Your task to perform on an android device: refresh tabs in the chrome app Image 0: 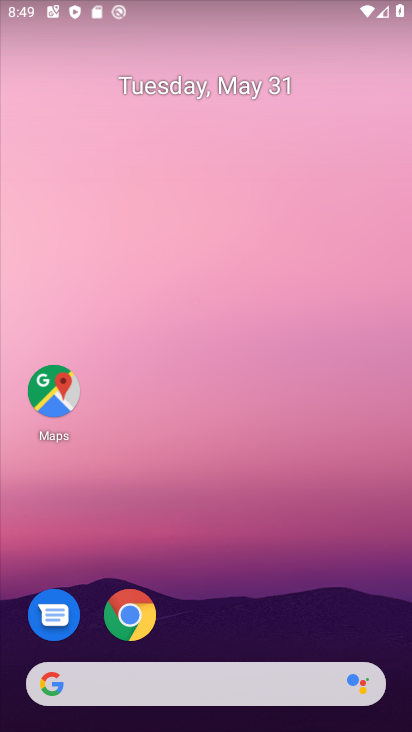
Step 0: click (125, 620)
Your task to perform on an android device: refresh tabs in the chrome app Image 1: 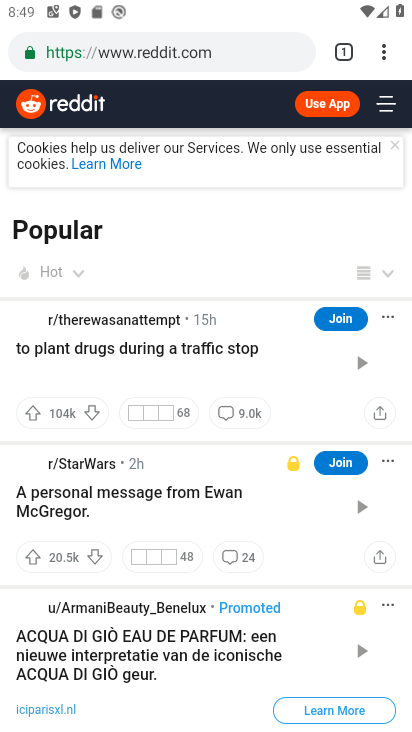
Step 1: click (388, 59)
Your task to perform on an android device: refresh tabs in the chrome app Image 2: 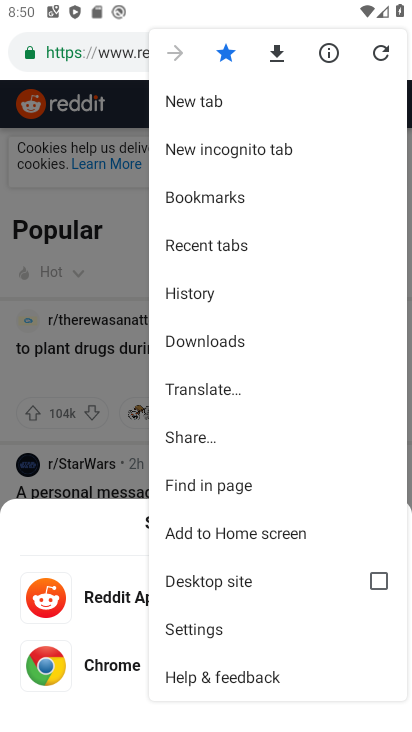
Step 2: click (376, 47)
Your task to perform on an android device: refresh tabs in the chrome app Image 3: 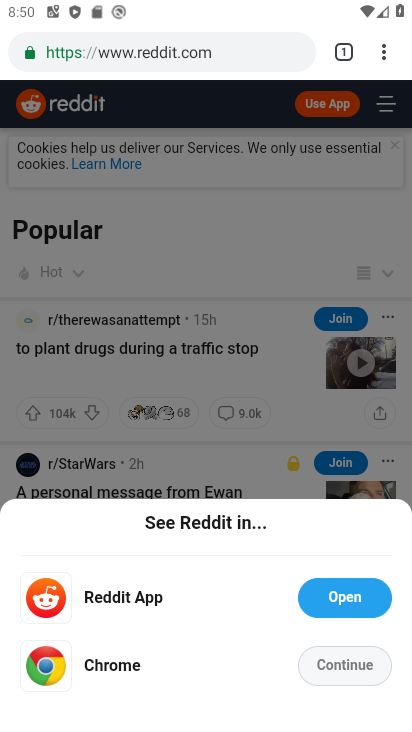
Step 3: task complete